Your task to perform on an android device: Open location settings Image 0: 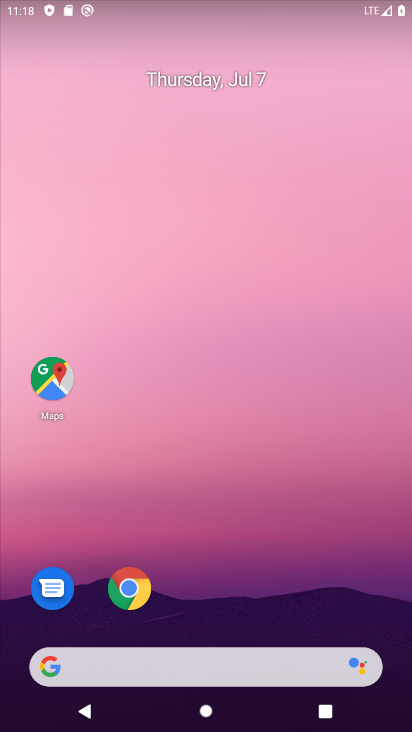
Step 0: drag from (192, 605) to (187, 83)
Your task to perform on an android device: Open location settings Image 1: 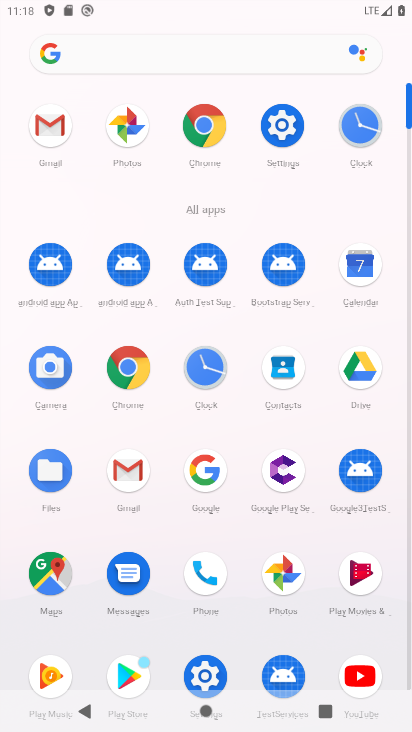
Step 1: click (284, 126)
Your task to perform on an android device: Open location settings Image 2: 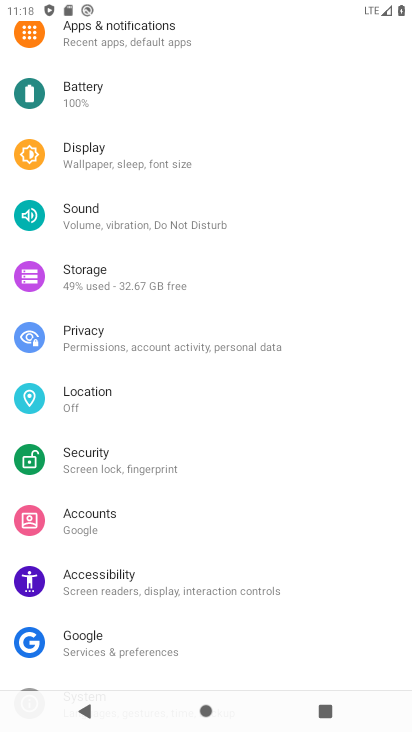
Step 2: click (113, 405)
Your task to perform on an android device: Open location settings Image 3: 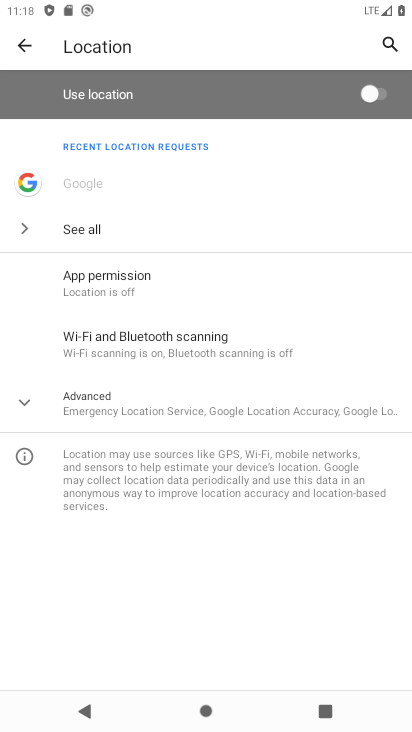
Step 3: task complete